Your task to perform on an android device: turn on translation in the chrome app Image 0: 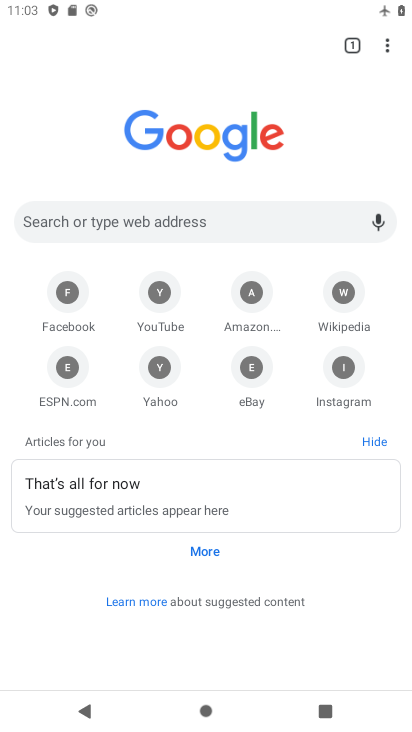
Step 0: press home button
Your task to perform on an android device: turn on translation in the chrome app Image 1: 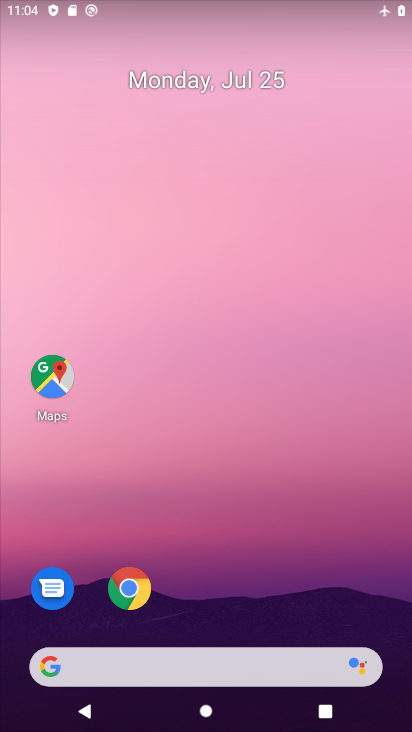
Step 1: drag from (199, 547) to (217, 153)
Your task to perform on an android device: turn on translation in the chrome app Image 2: 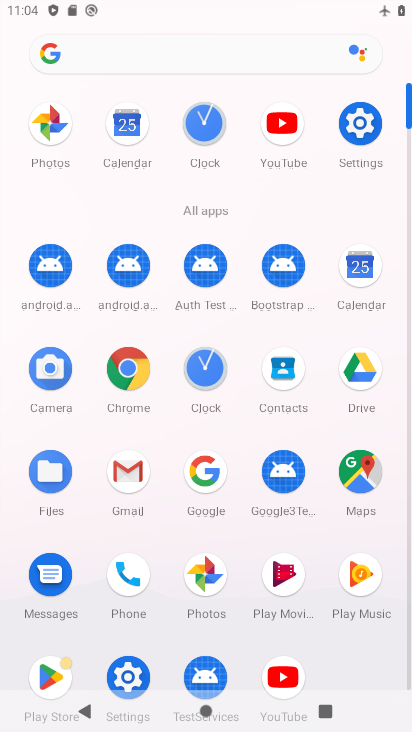
Step 2: click (132, 404)
Your task to perform on an android device: turn on translation in the chrome app Image 3: 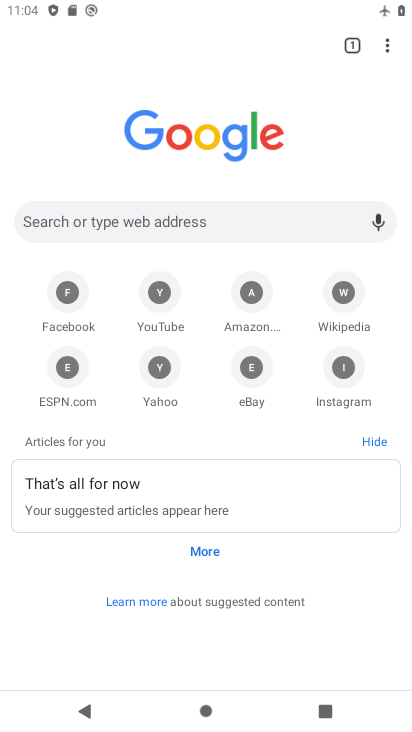
Step 3: click (388, 51)
Your task to perform on an android device: turn on translation in the chrome app Image 4: 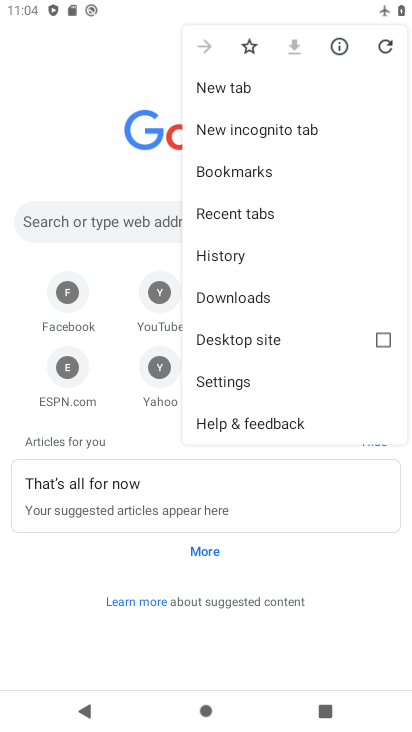
Step 4: click (238, 395)
Your task to perform on an android device: turn on translation in the chrome app Image 5: 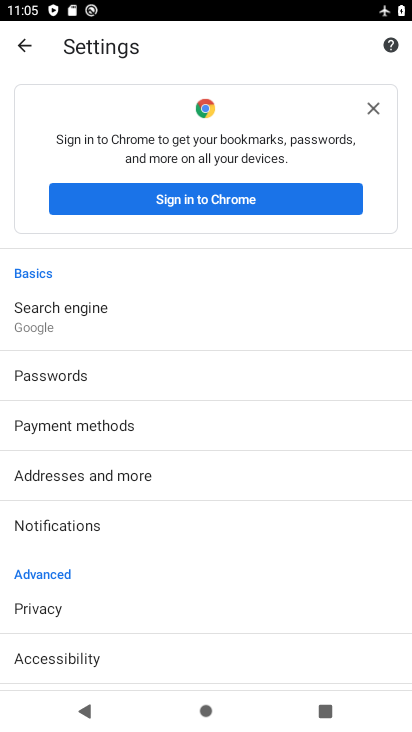
Step 5: drag from (91, 568) to (164, 331)
Your task to perform on an android device: turn on translation in the chrome app Image 6: 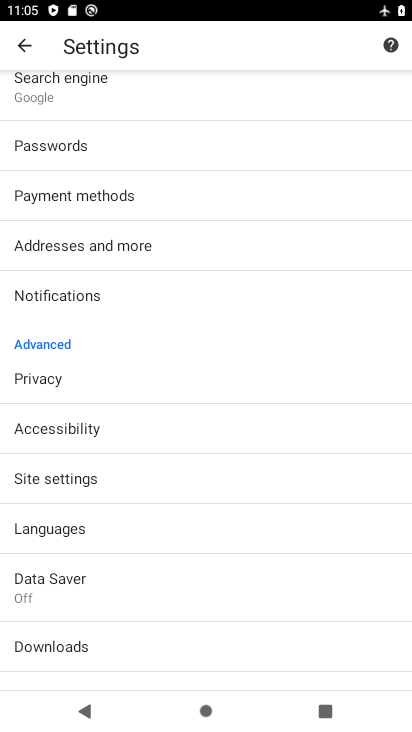
Step 6: click (25, 528)
Your task to perform on an android device: turn on translation in the chrome app Image 7: 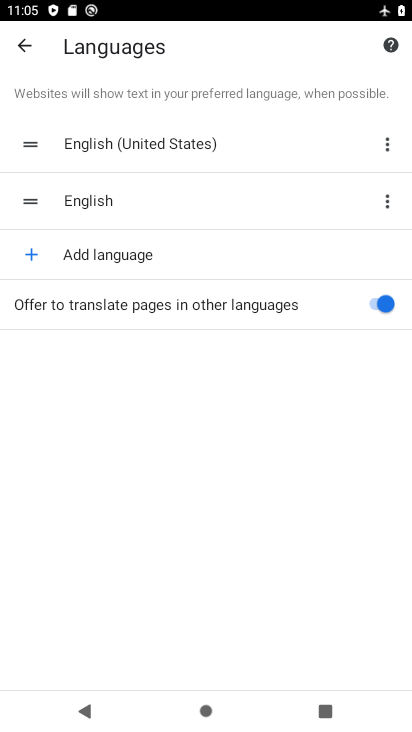
Step 7: click (372, 300)
Your task to perform on an android device: turn on translation in the chrome app Image 8: 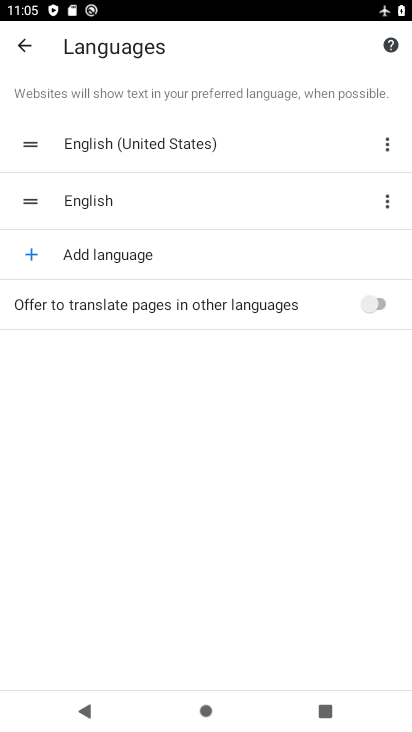
Step 8: click (383, 300)
Your task to perform on an android device: turn on translation in the chrome app Image 9: 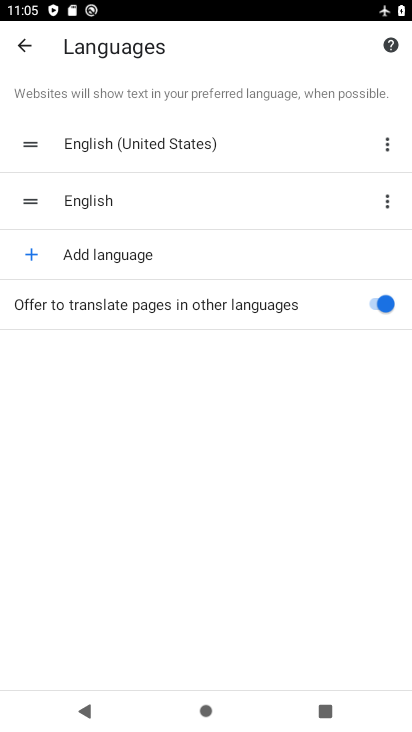
Step 9: task complete